Your task to perform on an android device: Open wifi settings Image 0: 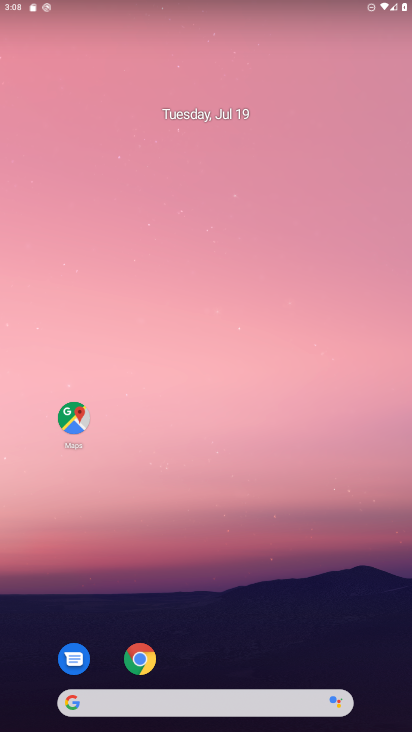
Step 0: drag from (254, 649) to (207, 7)
Your task to perform on an android device: Open wifi settings Image 1: 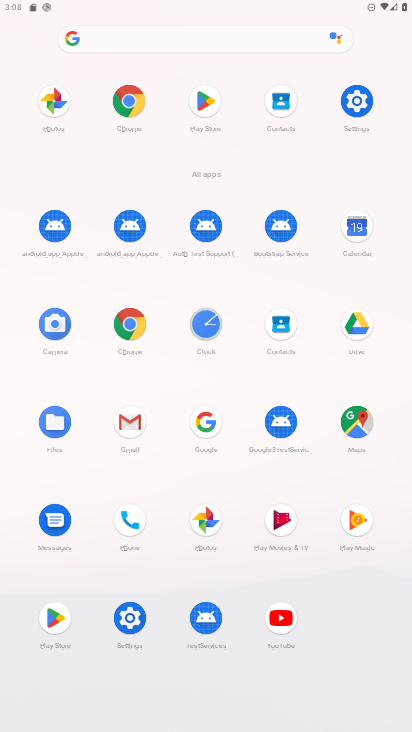
Step 1: click (356, 118)
Your task to perform on an android device: Open wifi settings Image 2: 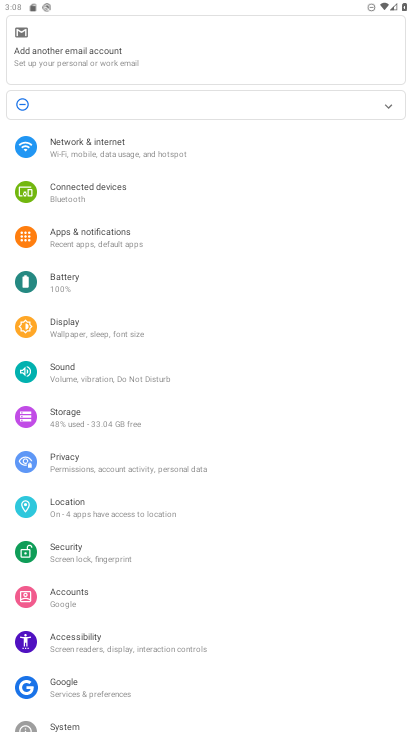
Step 2: click (119, 158)
Your task to perform on an android device: Open wifi settings Image 3: 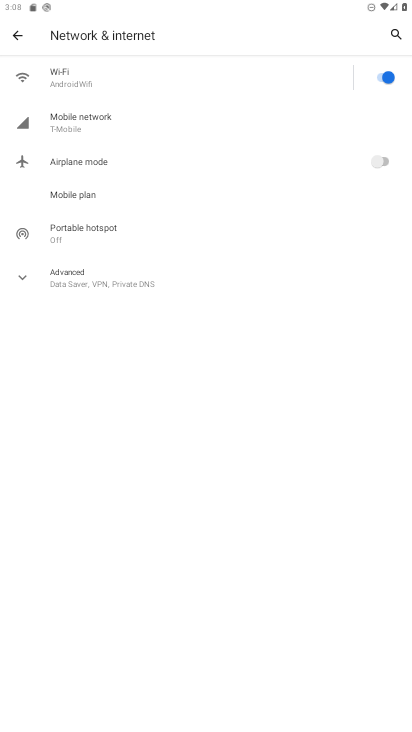
Step 3: click (72, 77)
Your task to perform on an android device: Open wifi settings Image 4: 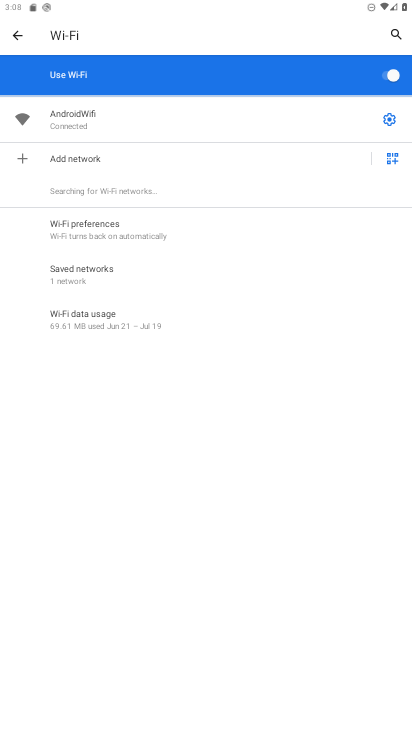
Step 4: task complete